Your task to perform on an android device: Is it going to rain today? Image 0: 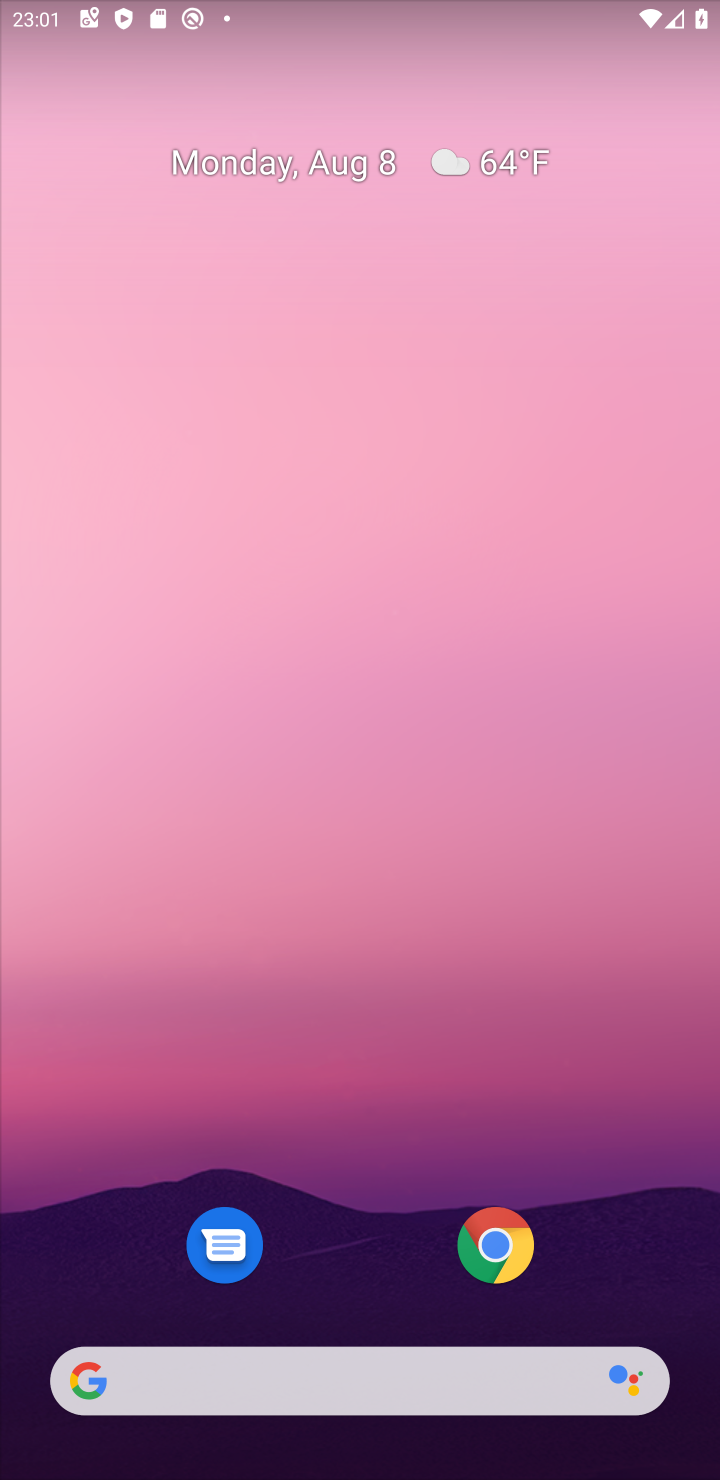
Step 0: press home button
Your task to perform on an android device: Is it going to rain today? Image 1: 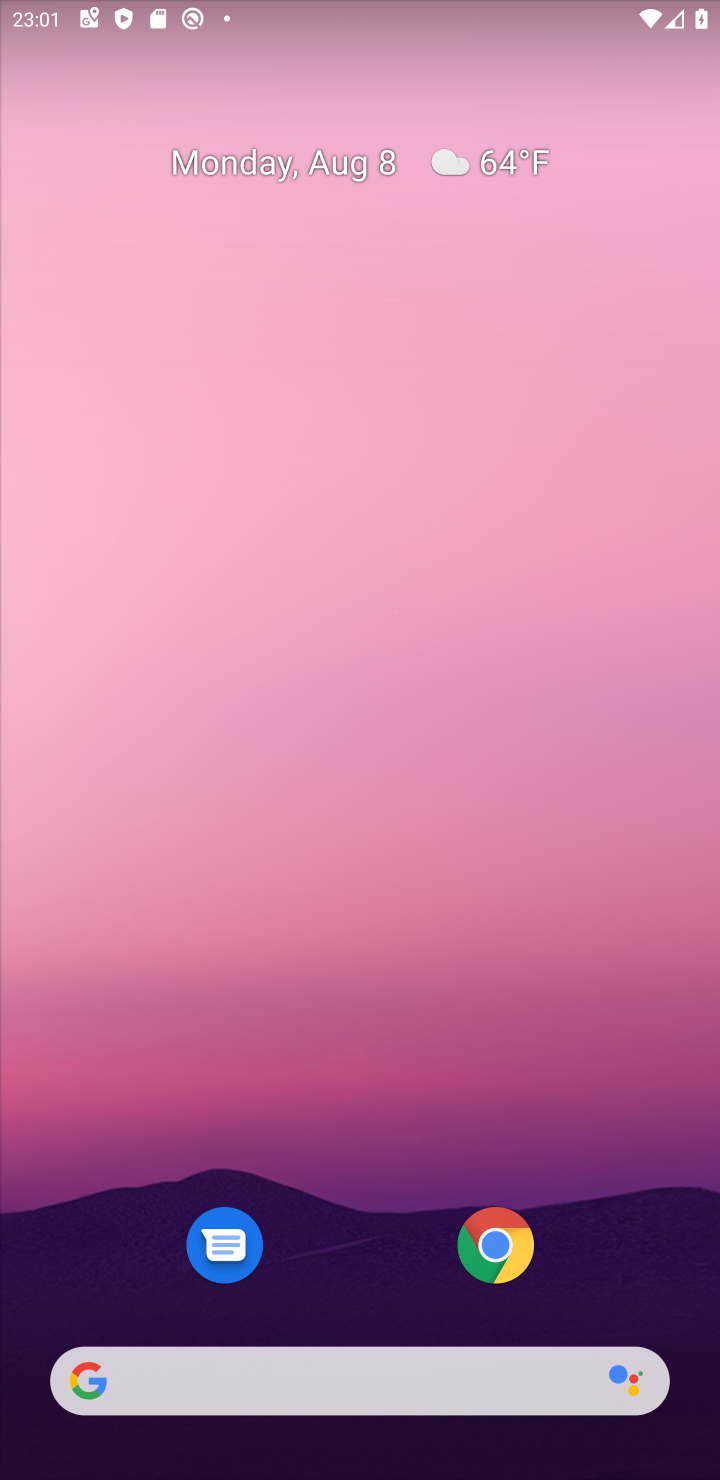
Step 1: click (343, 1382)
Your task to perform on an android device: Is it going to rain today? Image 2: 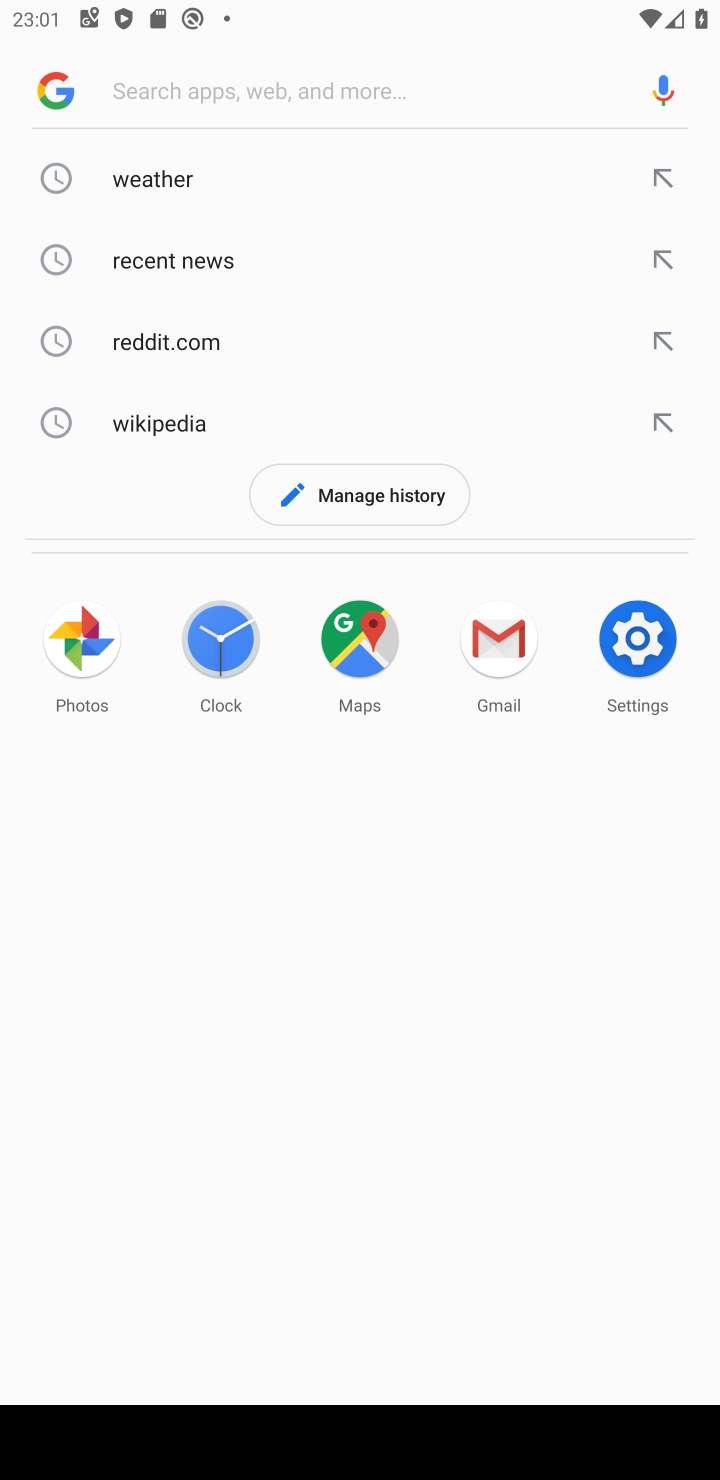
Step 2: click (154, 167)
Your task to perform on an android device: Is it going to rain today? Image 3: 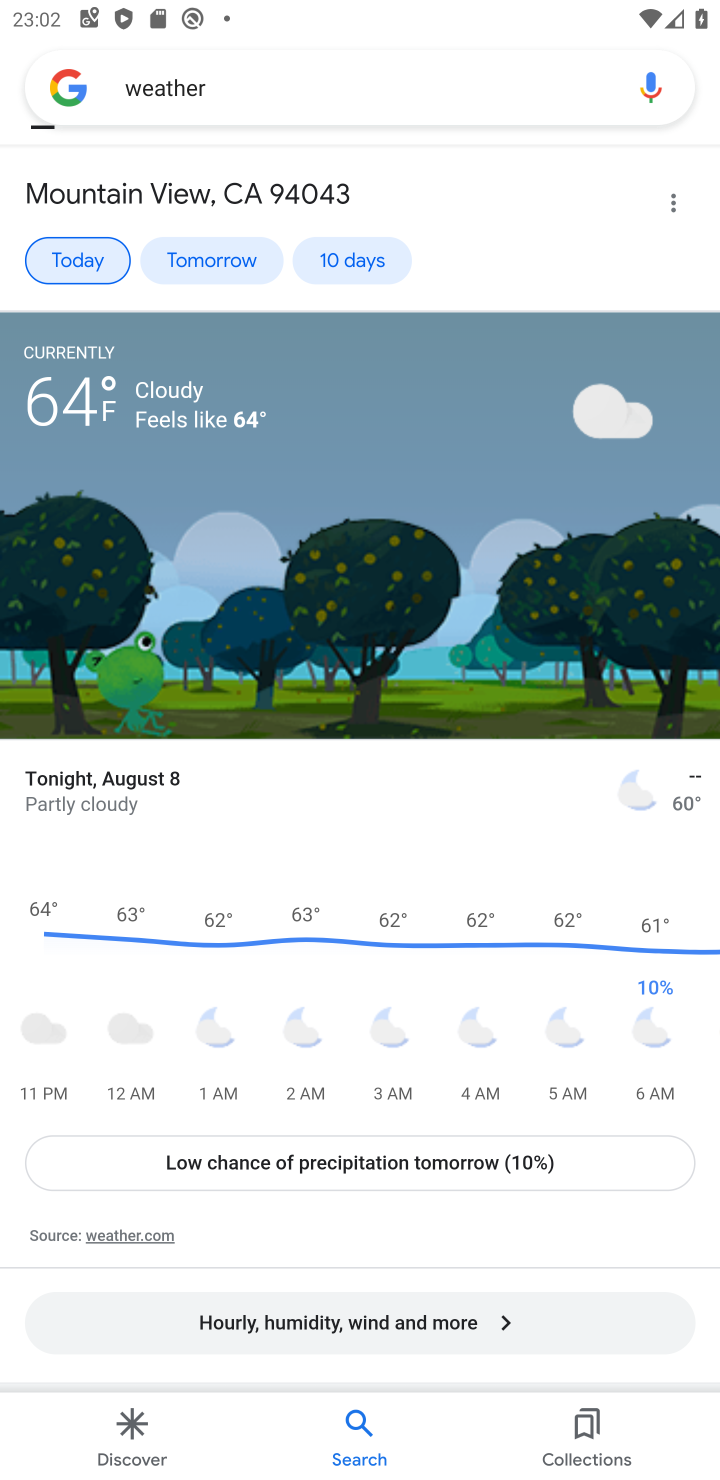
Step 3: task complete